Your task to perform on an android device: Check the news Image 0: 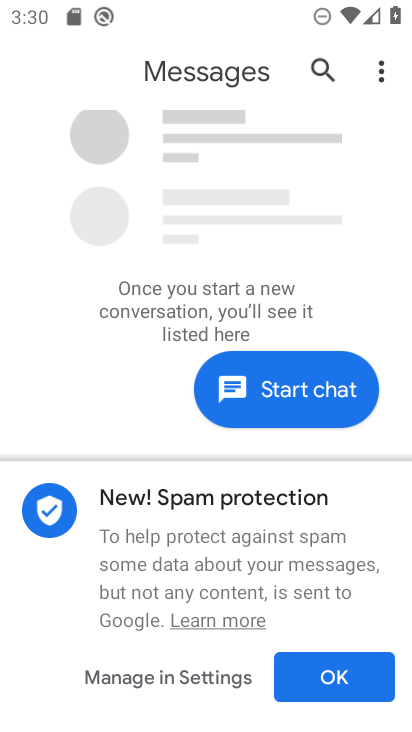
Step 0: press home button
Your task to perform on an android device: Check the news Image 1: 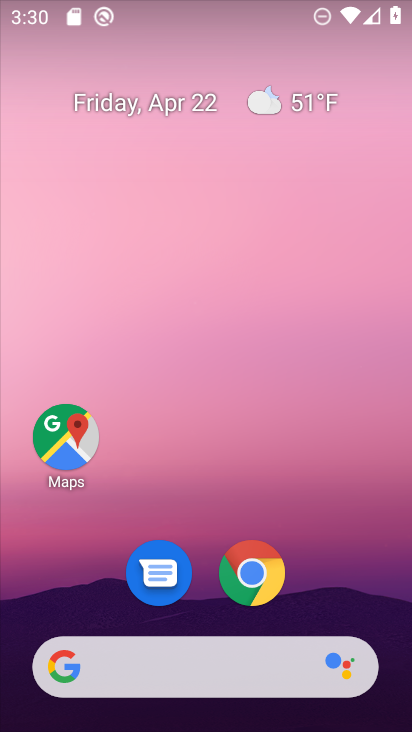
Step 1: drag from (315, 555) to (257, 144)
Your task to perform on an android device: Check the news Image 2: 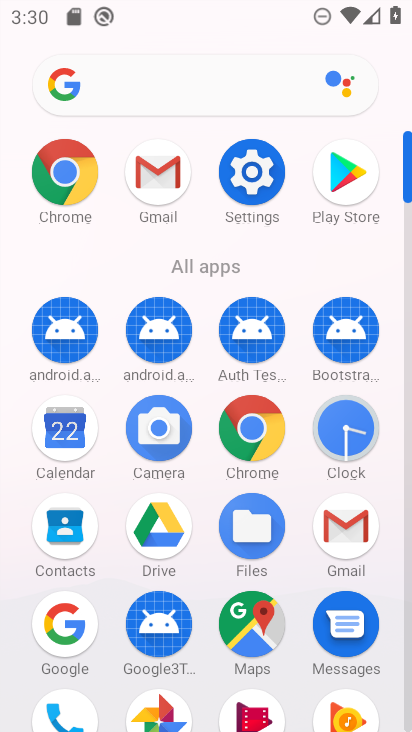
Step 2: click (79, 616)
Your task to perform on an android device: Check the news Image 3: 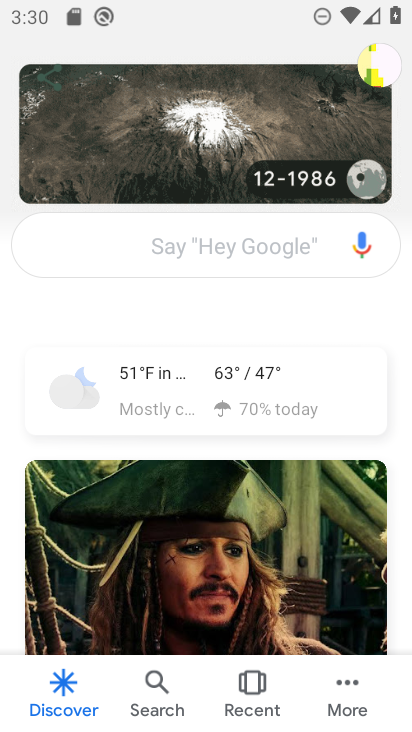
Step 3: click (196, 243)
Your task to perform on an android device: Check the news Image 4: 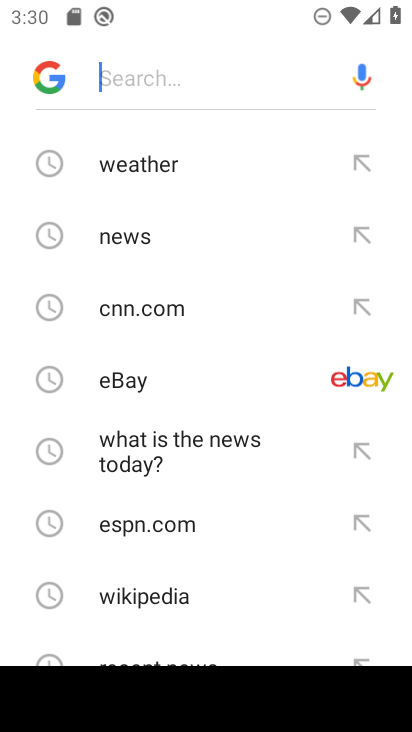
Step 4: click (196, 243)
Your task to perform on an android device: Check the news Image 5: 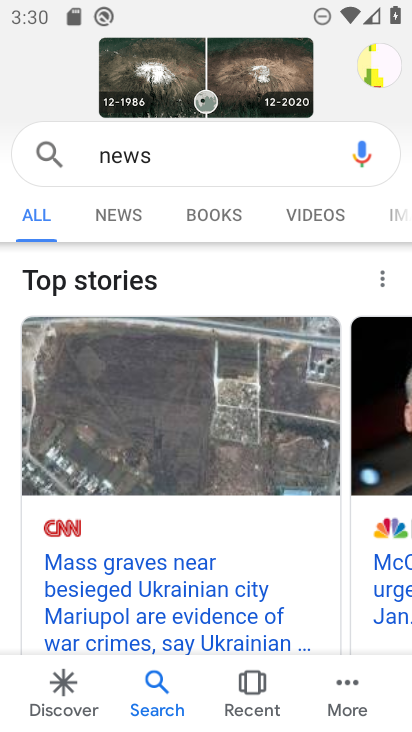
Step 5: task complete